Your task to perform on an android device: check the backup settings in the google photos Image 0: 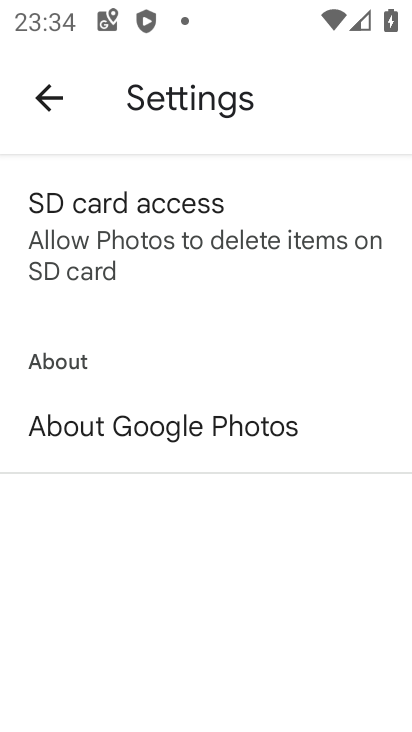
Step 0: task complete